Your task to perform on an android device: Show me recent news Image 0: 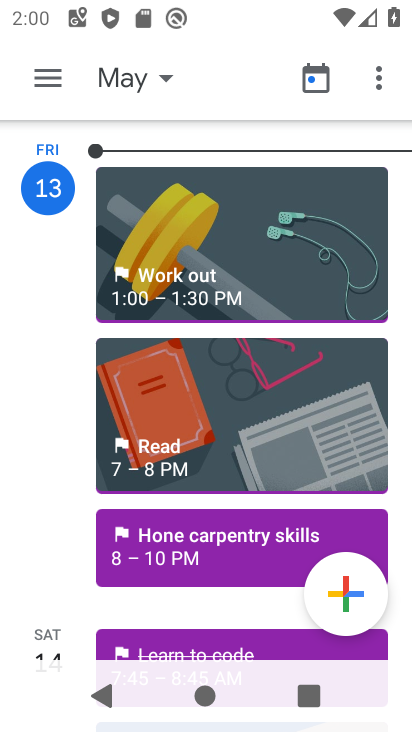
Step 0: press back button
Your task to perform on an android device: Show me recent news Image 1: 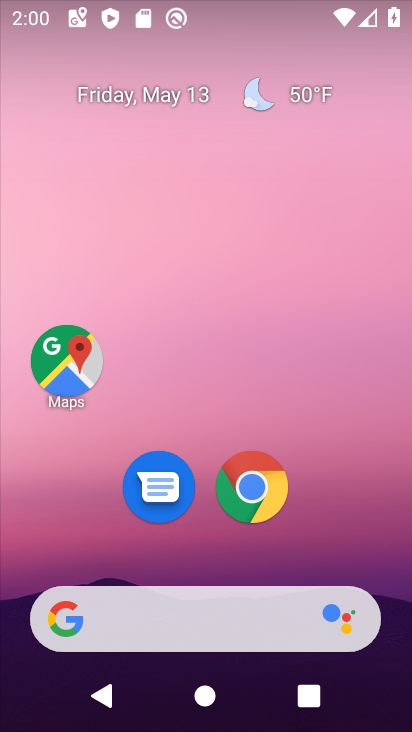
Step 1: task complete